Your task to perform on an android device: manage bookmarks in the chrome app Image 0: 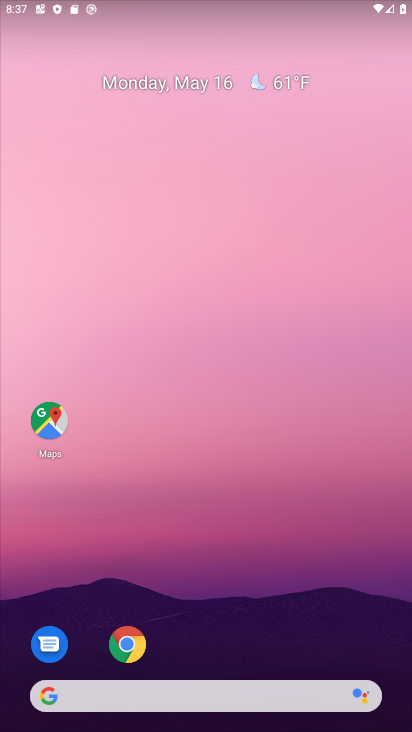
Step 0: click (123, 643)
Your task to perform on an android device: manage bookmarks in the chrome app Image 1: 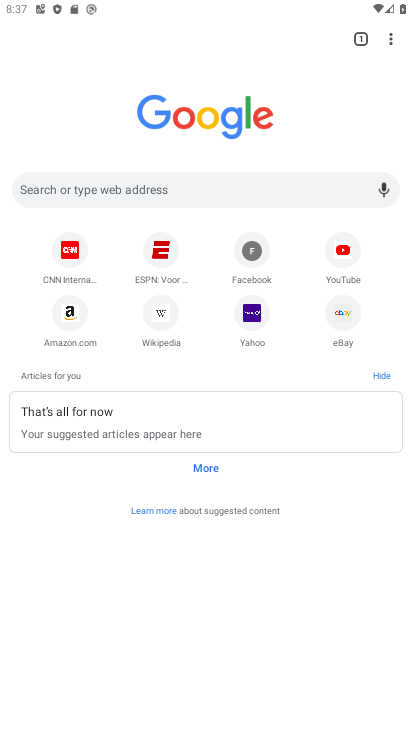
Step 1: click (386, 38)
Your task to perform on an android device: manage bookmarks in the chrome app Image 2: 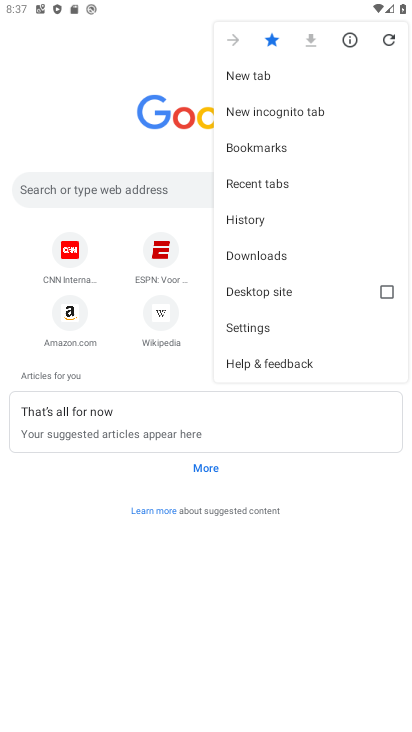
Step 2: click (245, 326)
Your task to perform on an android device: manage bookmarks in the chrome app Image 3: 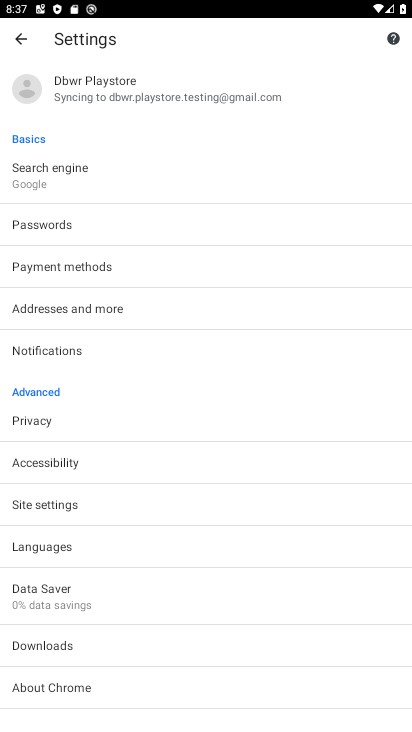
Step 3: press back button
Your task to perform on an android device: manage bookmarks in the chrome app Image 4: 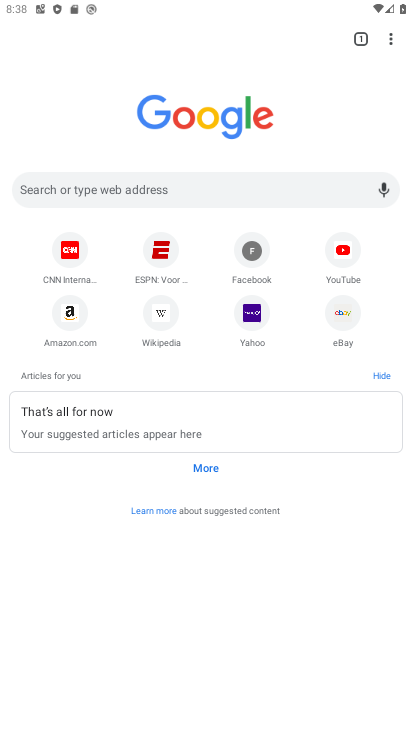
Step 4: click (388, 40)
Your task to perform on an android device: manage bookmarks in the chrome app Image 5: 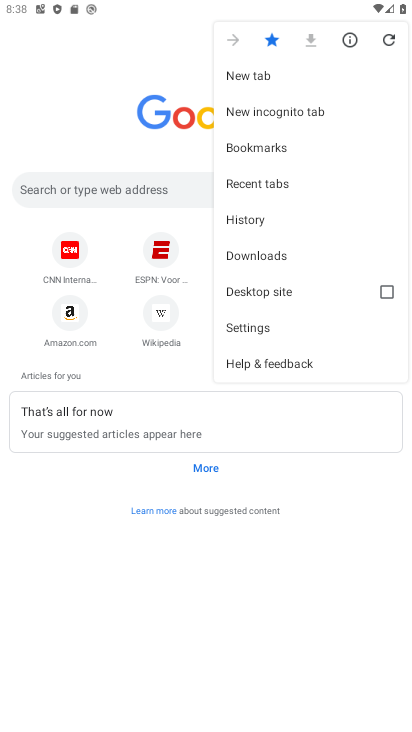
Step 5: click (276, 145)
Your task to perform on an android device: manage bookmarks in the chrome app Image 6: 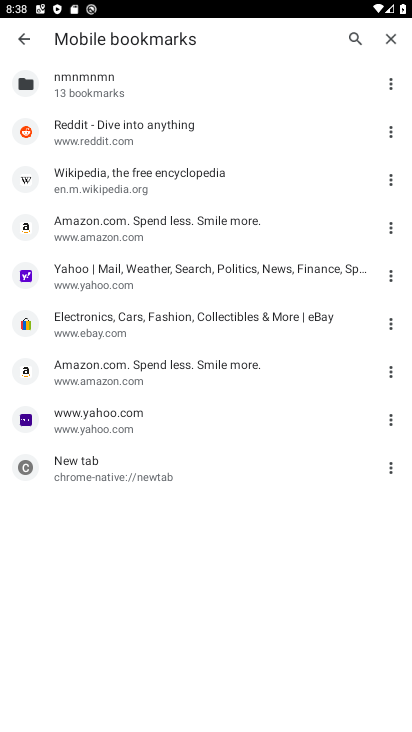
Step 6: click (389, 468)
Your task to perform on an android device: manage bookmarks in the chrome app Image 7: 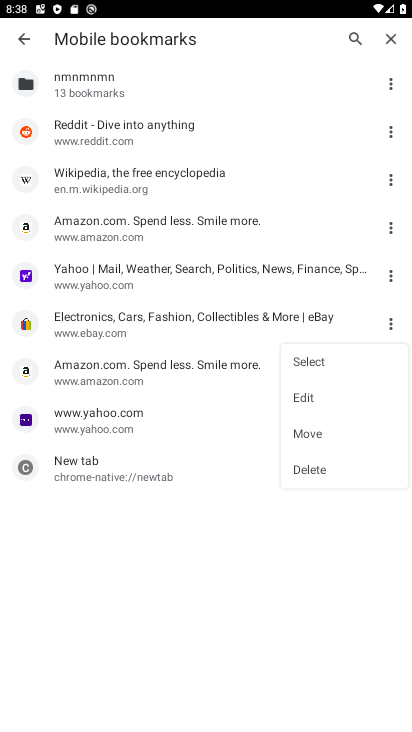
Step 7: click (321, 474)
Your task to perform on an android device: manage bookmarks in the chrome app Image 8: 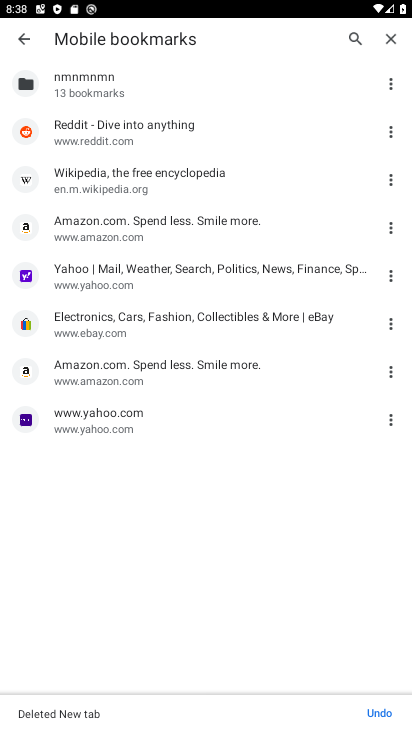
Step 8: task complete